Your task to perform on an android device: open a bookmark in the chrome app Image 0: 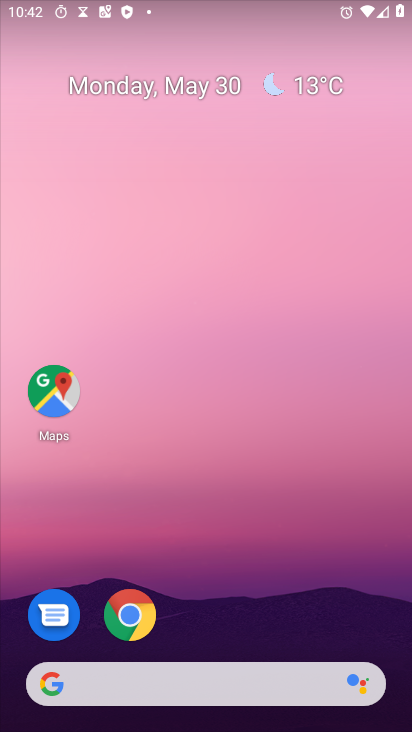
Step 0: drag from (351, 609) to (376, 80)
Your task to perform on an android device: open a bookmark in the chrome app Image 1: 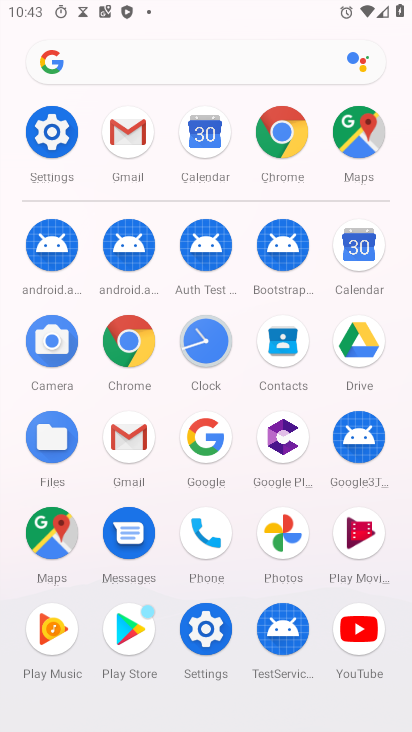
Step 1: click (281, 133)
Your task to perform on an android device: open a bookmark in the chrome app Image 2: 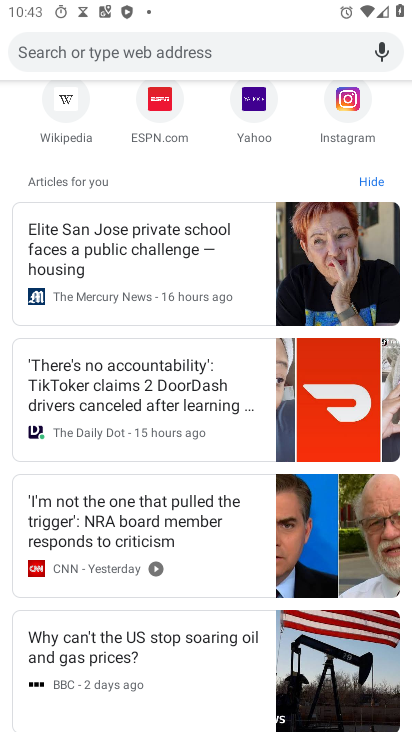
Step 2: task complete